Your task to perform on an android device: Open Reddit.com Image 0: 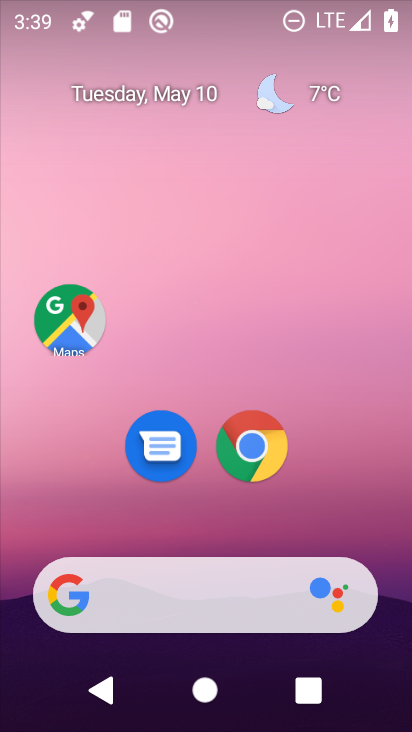
Step 0: click (262, 448)
Your task to perform on an android device: Open Reddit.com Image 1: 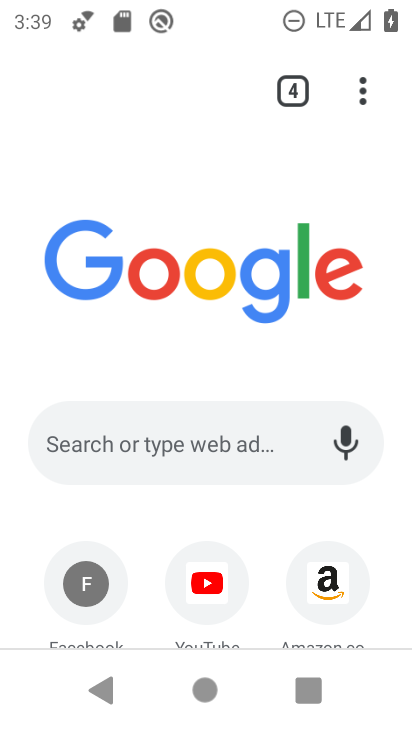
Step 1: drag from (269, 542) to (247, 235)
Your task to perform on an android device: Open Reddit.com Image 2: 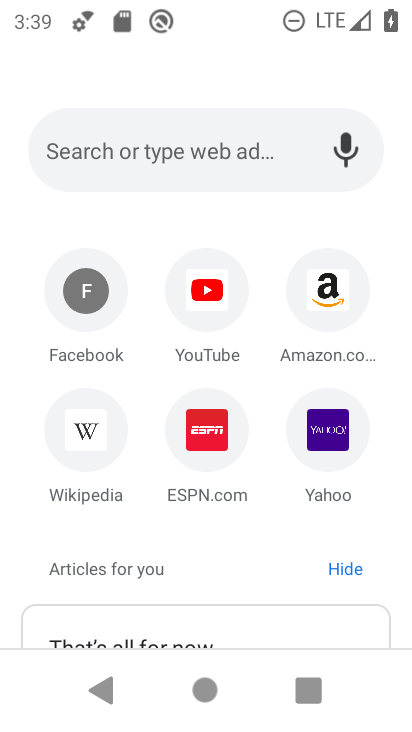
Step 2: click (124, 154)
Your task to perform on an android device: Open Reddit.com Image 3: 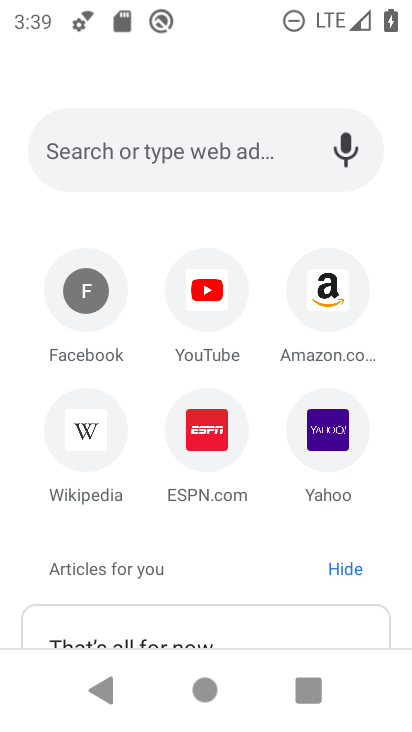
Step 3: click (184, 162)
Your task to perform on an android device: Open Reddit.com Image 4: 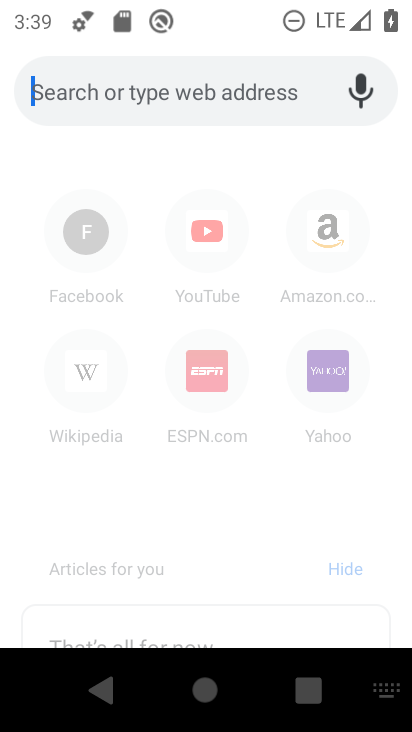
Step 4: type "Reddit.com"
Your task to perform on an android device: Open Reddit.com Image 5: 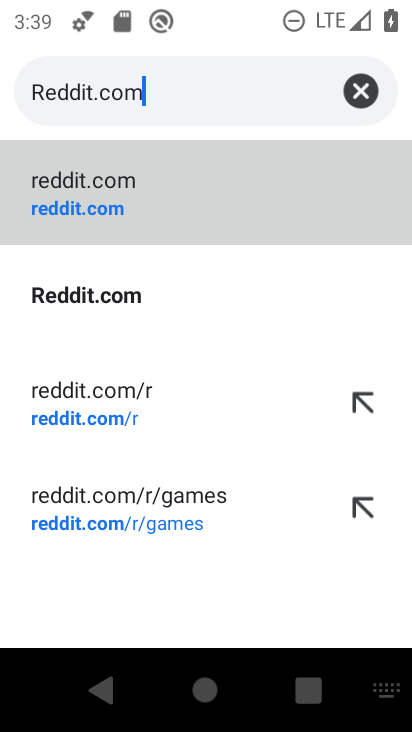
Step 5: click (169, 207)
Your task to perform on an android device: Open Reddit.com Image 6: 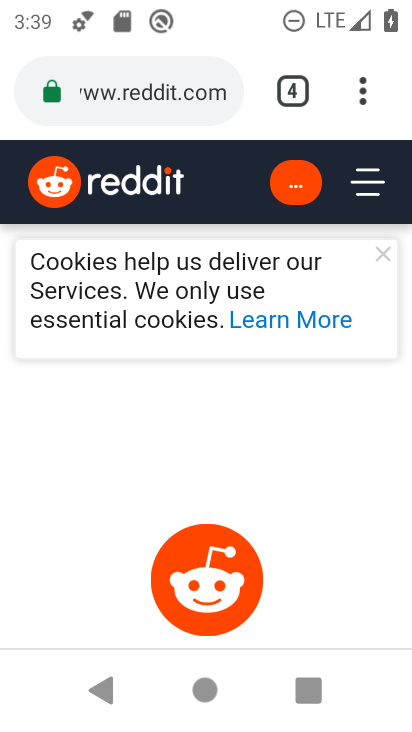
Step 6: task complete